Your task to perform on an android device: Is it going to rain tomorrow? Image 0: 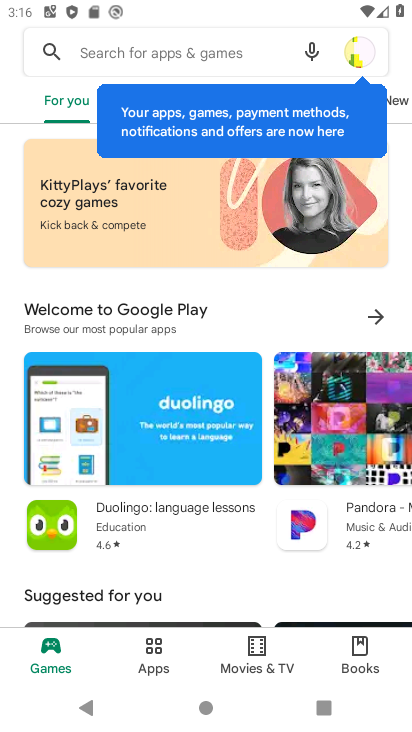
Step 0: press home button
Your task to perform on an android device: Is it going to rain tomorrow? Image 1: 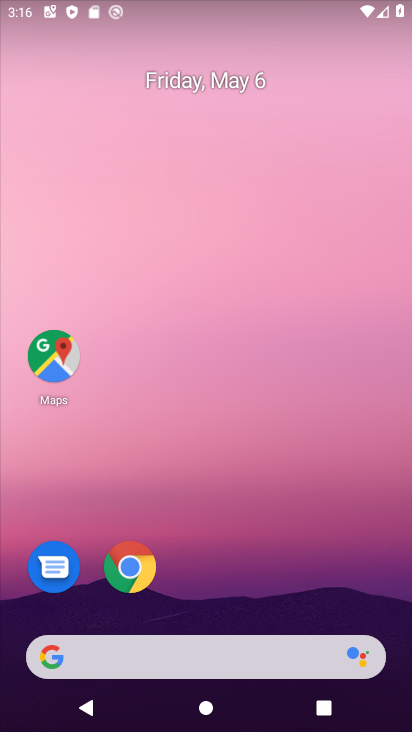
Step 1: click (130, 563)
Your task to perform on an android device: Is it going to rain tomorrow? Image 2: 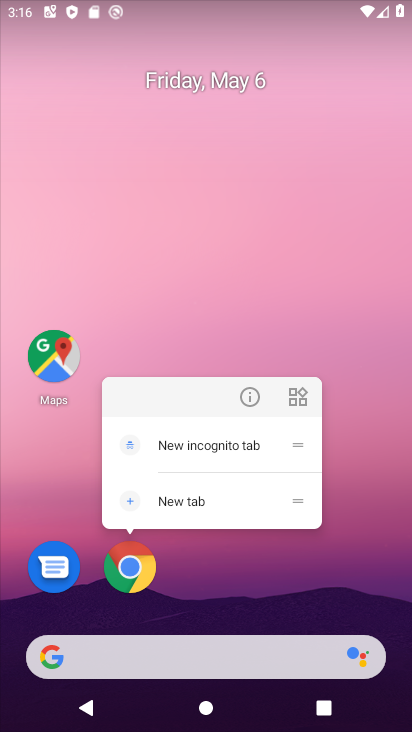
Step 2: click (251, 398)
Your task to perform on an android device: Is it going to rain tomorrow? Image 3: 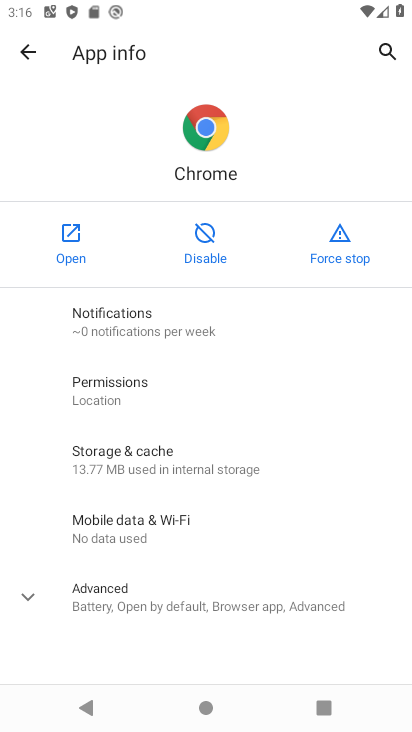
Step 3: click (76, 238)
Your task to perform on an android device: Is it going to rain tomorrow? Image 4: 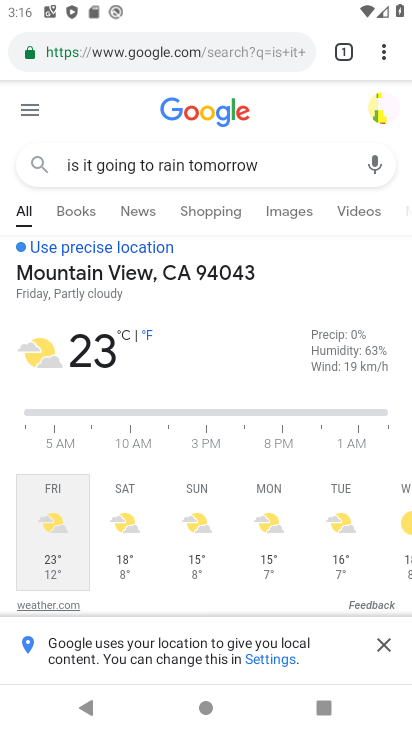
Step 4: click (136, 56)
Your task to perform on an android device: Is it going to rain tomorrow? Image 5: 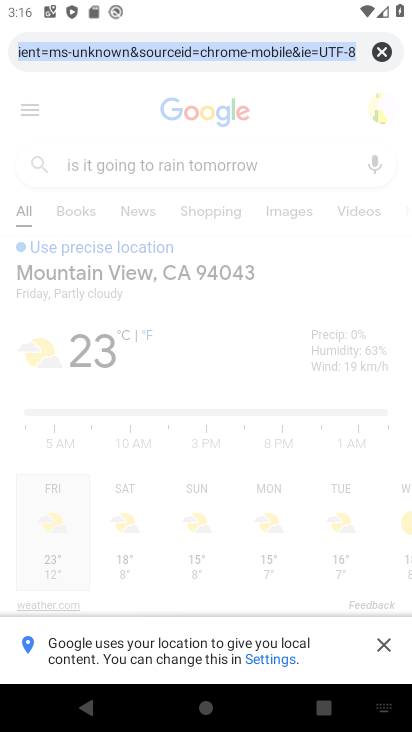
Step 5: type "Is it going to rain tomorrow?"
Your task to perform on an android device: Is it going to rain tomorrow? Image 6: 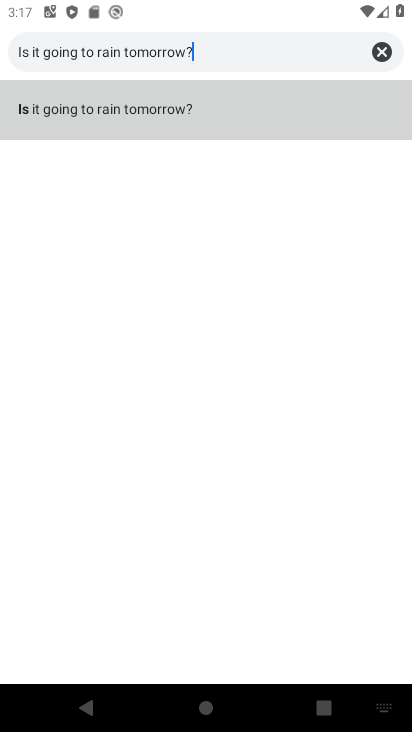
Step 6: click (98, 111)
Your task to perform on an android device: Is it going to rain tomorrow? Image 7: 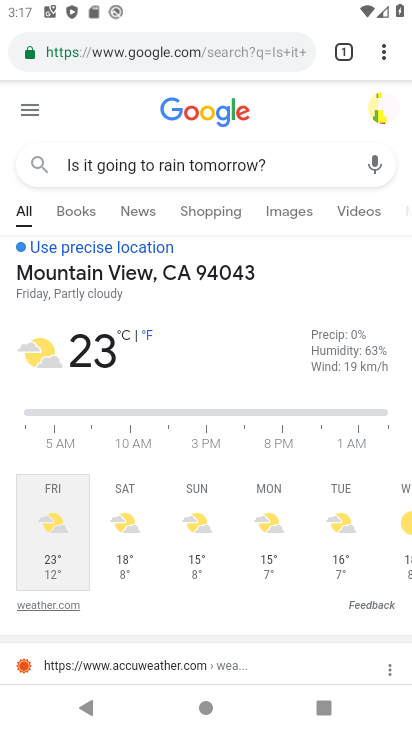
Step 7: task complete